Your task to perform on an android device: Go to eBay Image 0: 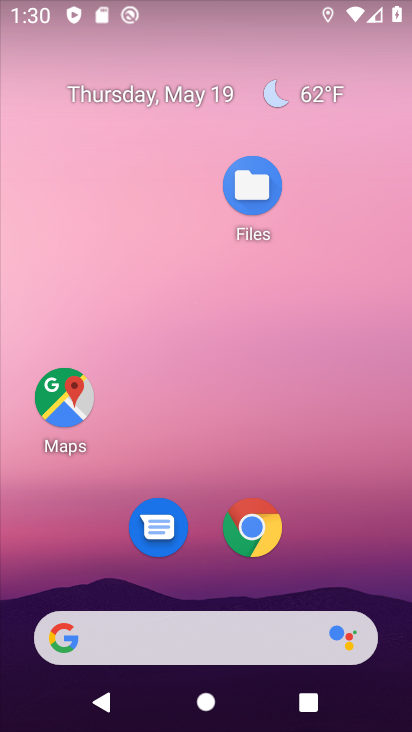
Step 0: drag from (381, 539) to (372, 169)
Your task to perform on an android device: Go to eBay Image 1: 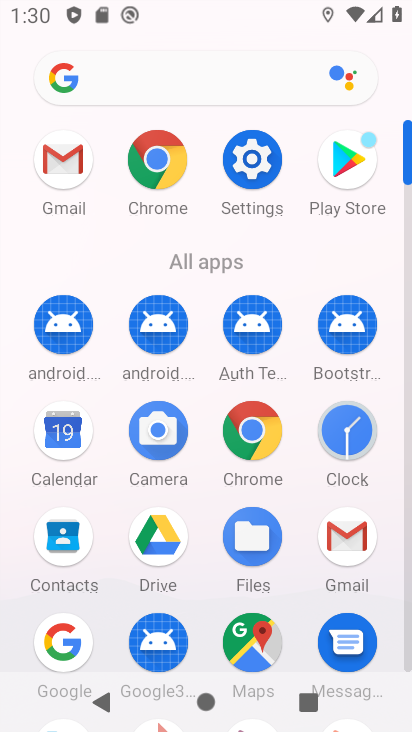
Step 1: click (148, 173)
Your task to perform on an android device: Go to eBay Image 2: 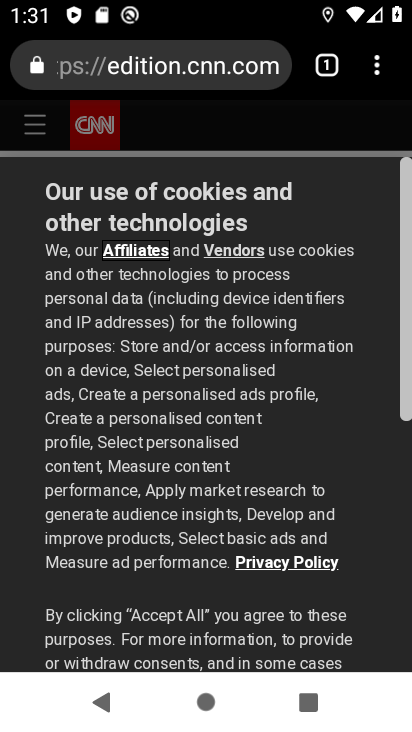
Step 2: click (138, 58)
Your task to perform on an android device: Go to eBay Image 3: 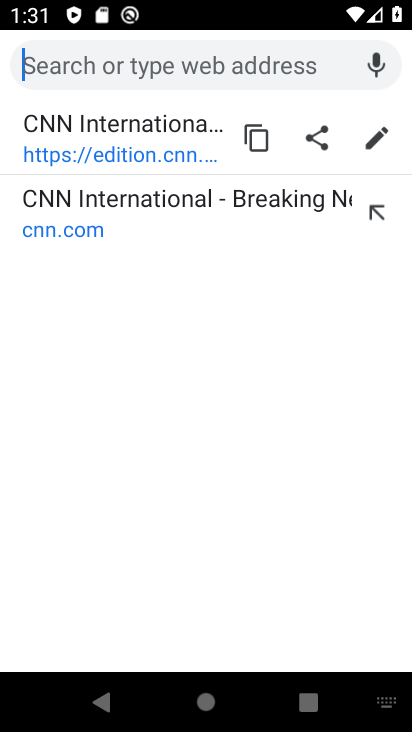
Step 3: type "ebay"
Your task to perform on an android device: Go to eBay Image 4: 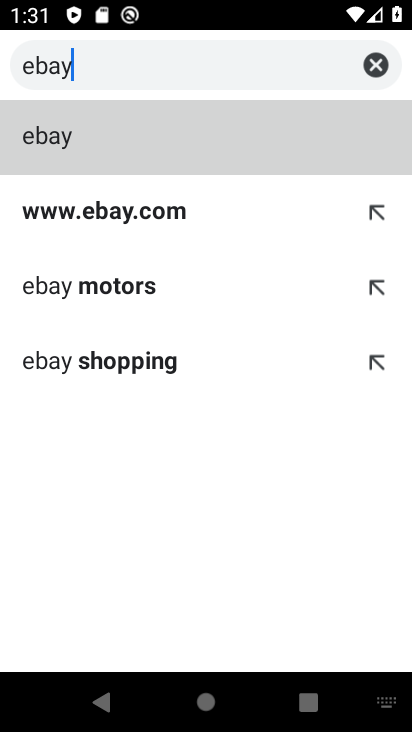
Step 4: click (145, 212)
Your task to perform on an android device: Go to eBay Image 5: 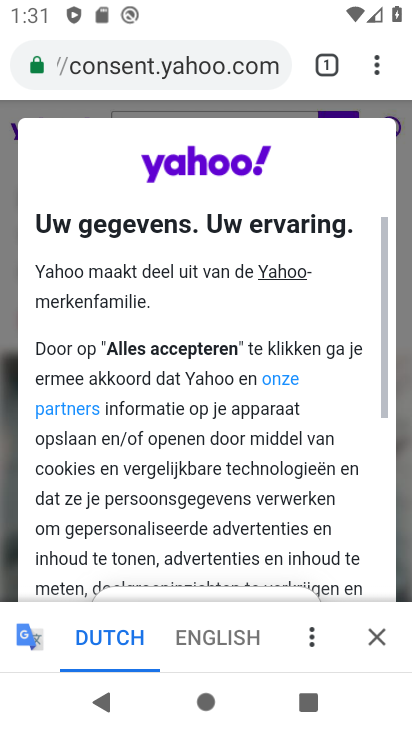
Step 5: click (370, 644)
Your task to perform on an android device: Go to eBay Image 6: 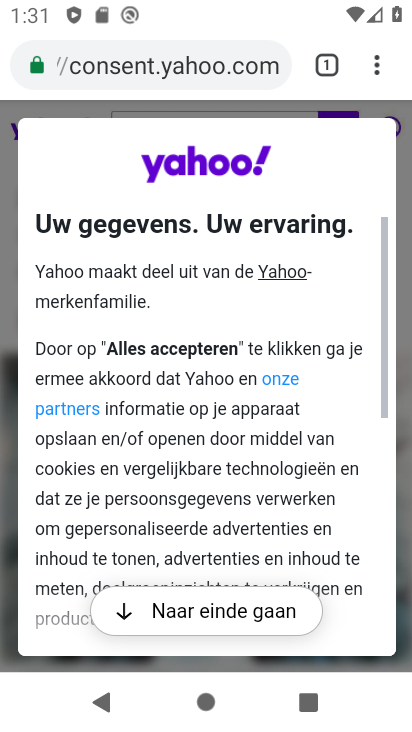
Step 6: drag from (341, 561) to (355, 197)
Your task to perform on an android device: Go to eBay Image 7: 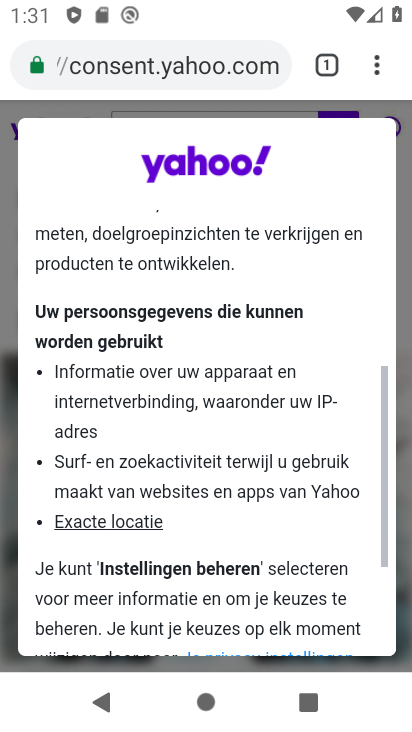
Step 7: drag from (324, 549) to (362, 247)
Your task to perform on an android device: Go to eBay Image 8: 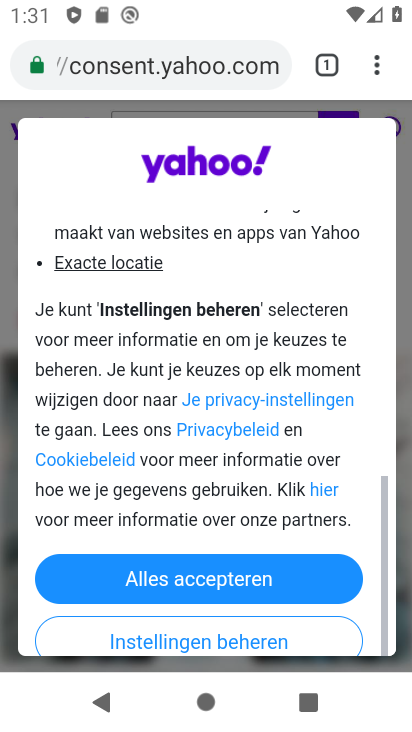
Step 8: click (255, 580)
Your task to perform on an android device: Go to eBay Image 9: 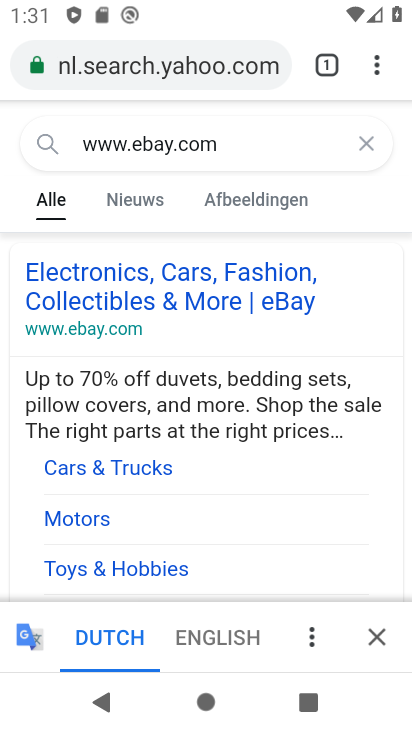
Step 9: click (365, 636)
Your task to perform on an android device: Go to eBay Image 10: 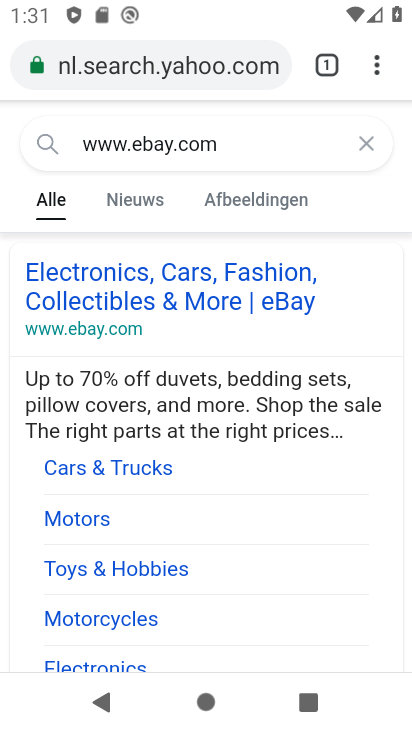
Step 10: task complete